Your task to perform on an android device: move a message to another label in the gmail app Image 0: 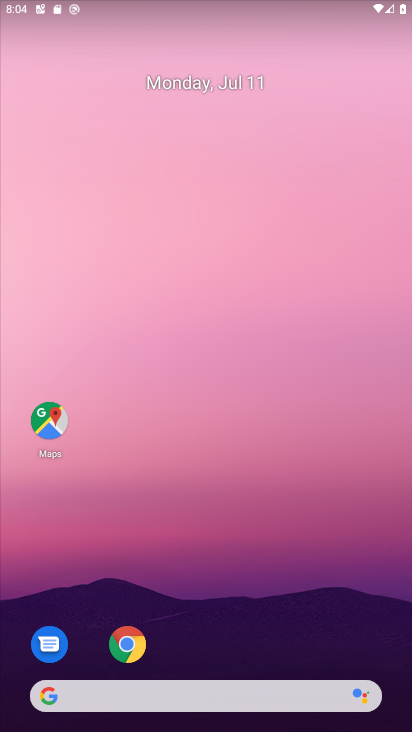
Step 0: drag from (224, 651) to (336, 240)
Your task to perform on an android device: move a message to another label in the gmail app Image 1: 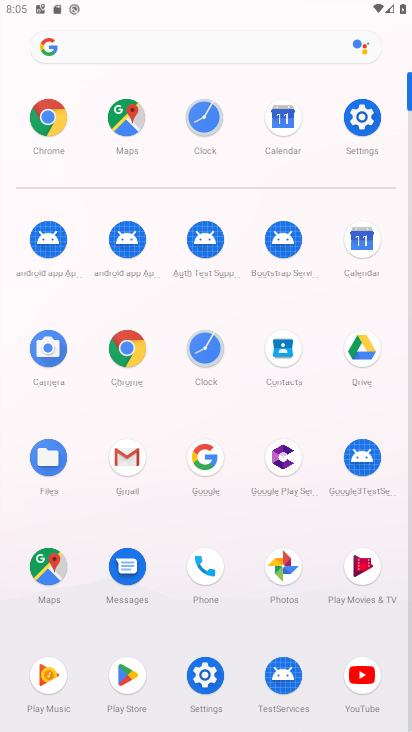
Step 1: click (124, 452)
Your task to perform on an android device: move a message to another label in the gmail app Image 2: 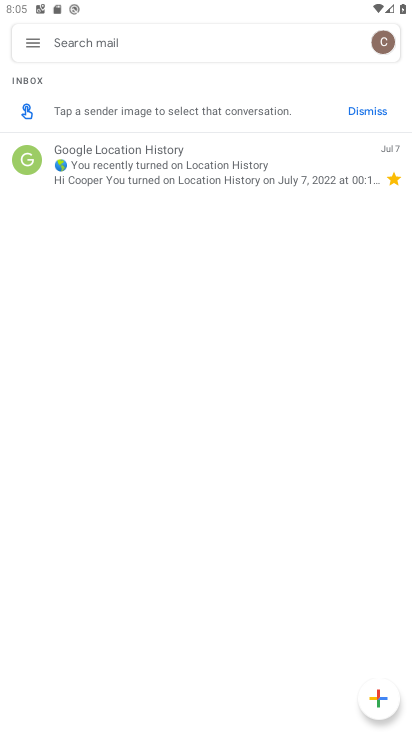
Step 2: click (82, 168)
Your task to perform on an android device: move a message to another label in the gmail app Image 3: 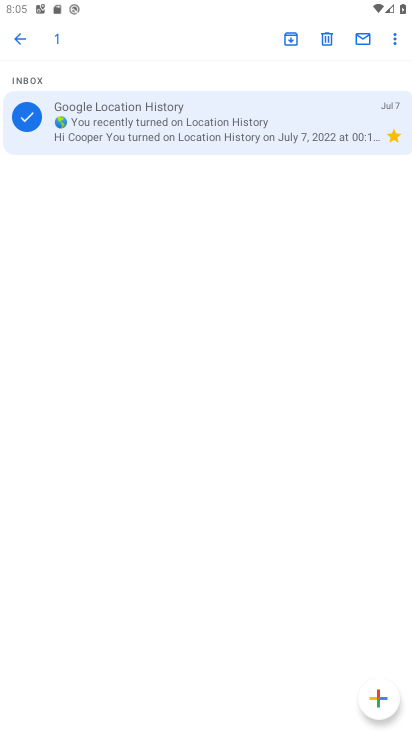
Step 3: click (400, 30)
Your task to perform on an android device: move a message to another label in the gmail app Image 4: 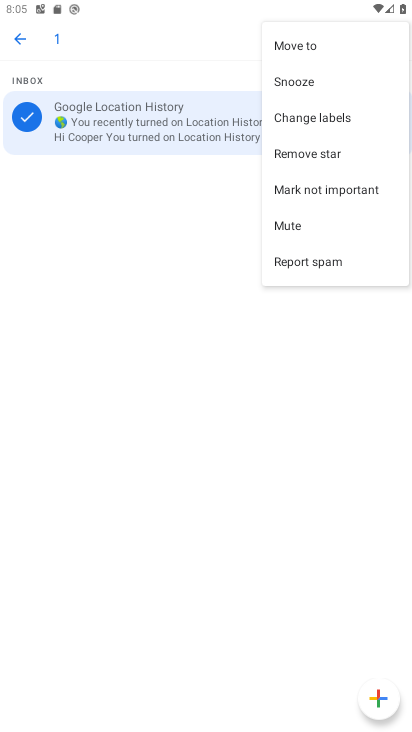
Step 4: click (305, 120)
Your task to perform on an android device: move a message to another label in the gmail app Image 5: 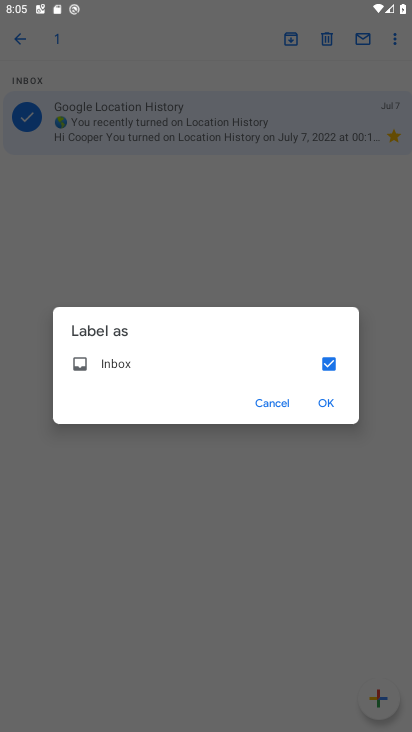
Step 5: click (327, 397)
Your task to perform on an android device: move a message to another label in the gmail app Image 6: 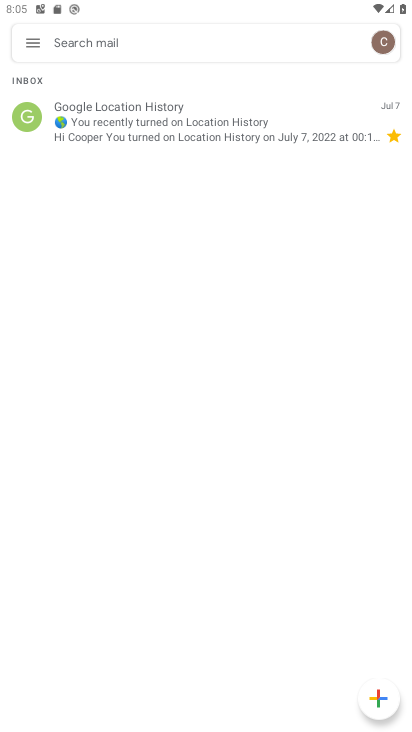
Step 6: task complete